Your task to perform on an android device: Open Chrome and go to settings Image 0: 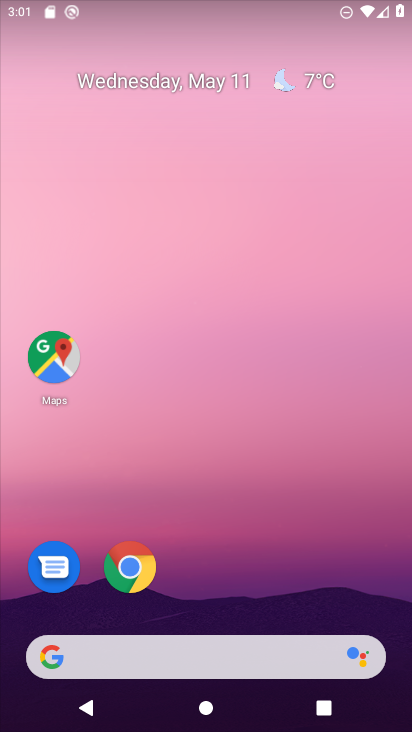
Step 0: click (143, 565)
Your task to perform on an android device: Open Chrome and go to settings Image 1: 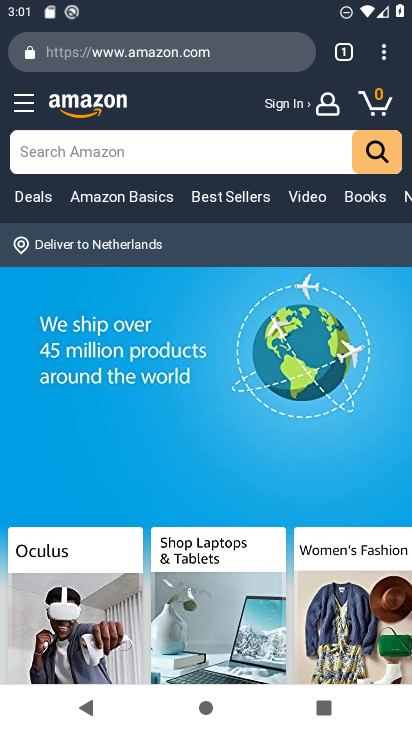
Step 1: click (386, 59)
Your task to perform on an android device: Open Chrome and go to settings Image 2: 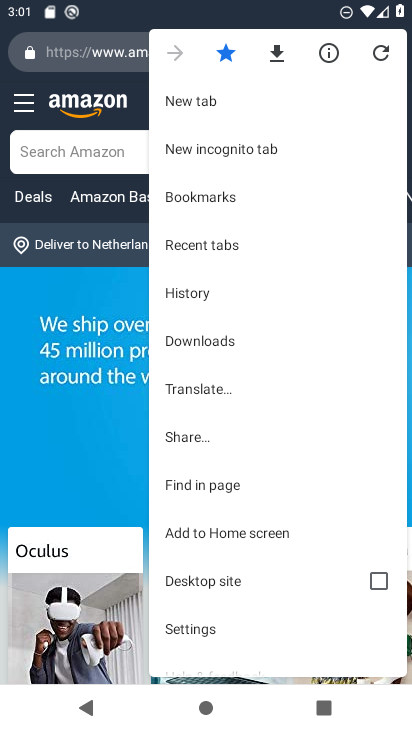
Step 2: click (228, 631)
Your task to perform on an android device: Open Chrome and go to settings Image 3: 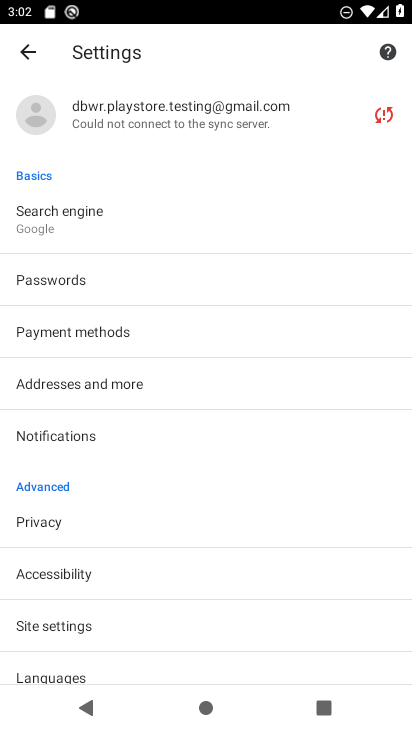
Step 3: task complete